Your task to perform on an android device: What's on my calendar tomorrow? Image 0: 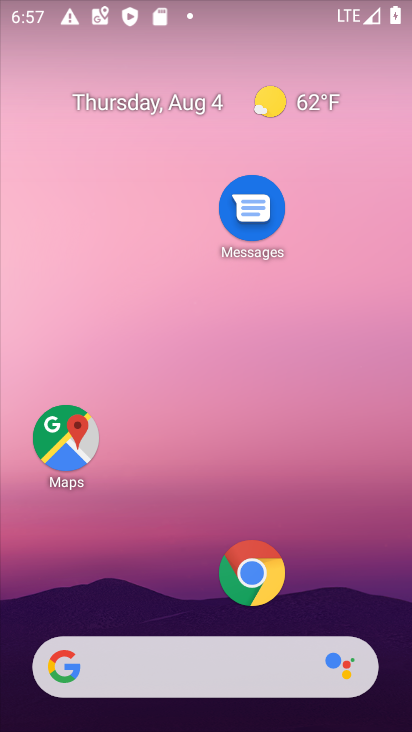
Step 0: drag from (180, 612) to (223, 172)
Your task to perform on an android device: What's on my calendar tomorrow? Image 1: 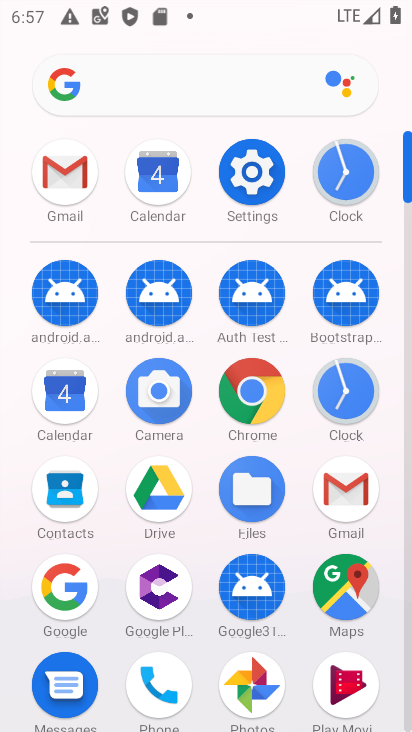
Step 1: click (157, 171)
Your task to perform on an android device: What's on my calendar tomorrow? Image 2: 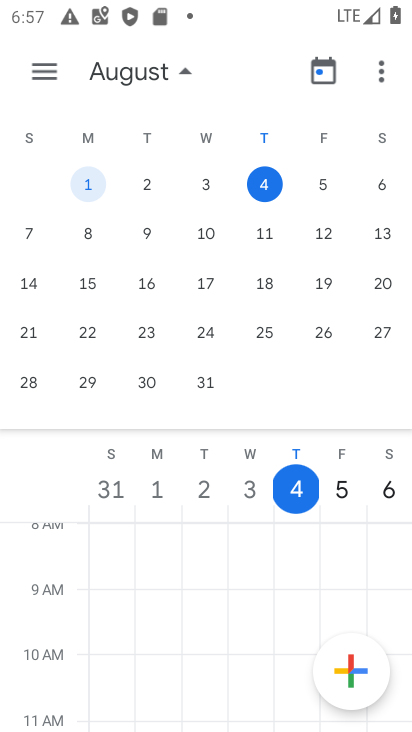
Step 2: click (320, 188)
Your task to perform on an android device: What's on my calendar tomorrow? Image 3: 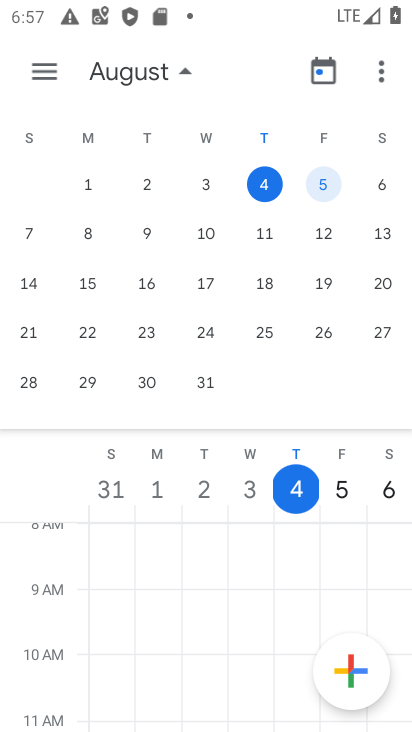
Step 3: task complete